Your task to perform on an android device: all mails in gmail Image 0: 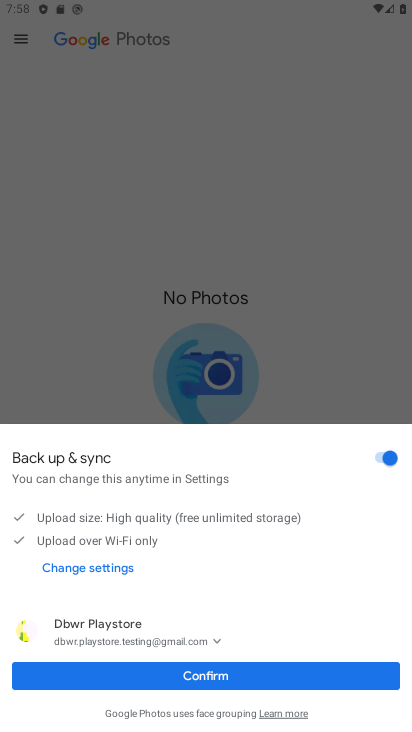
Step 0: press home button
Your task to perform on an android device: all mails in gmail Image 1: 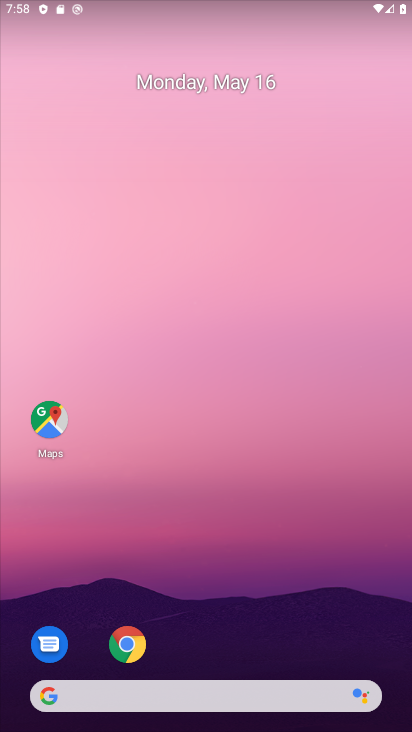
Step 1: drag from (286, 625) to (243, 26)
Your task to perform on an android device: all mails in gmail Image 2: 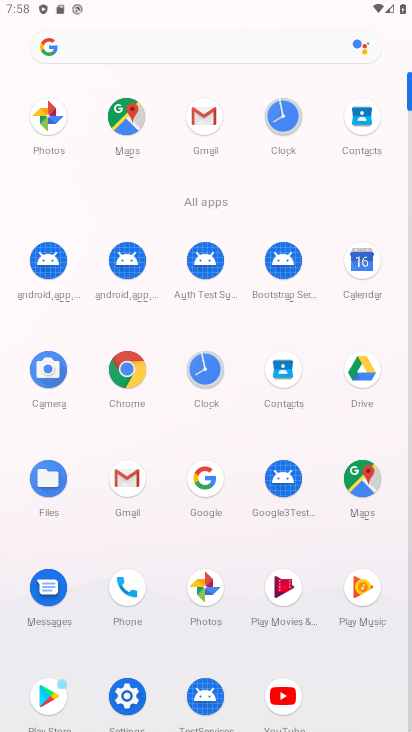
Step 2: click (129, 476)
Your task to perform on an android device: all mails in gmail Image 3: 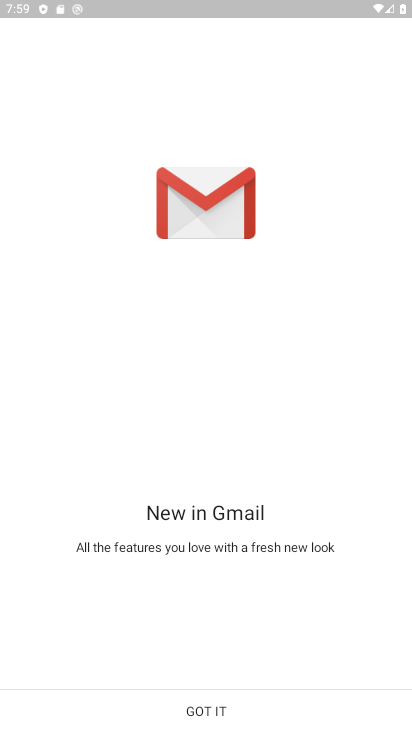
Step 3: click (197, 709)
Your task to perform on an android device: all mails in gmail Image 4: 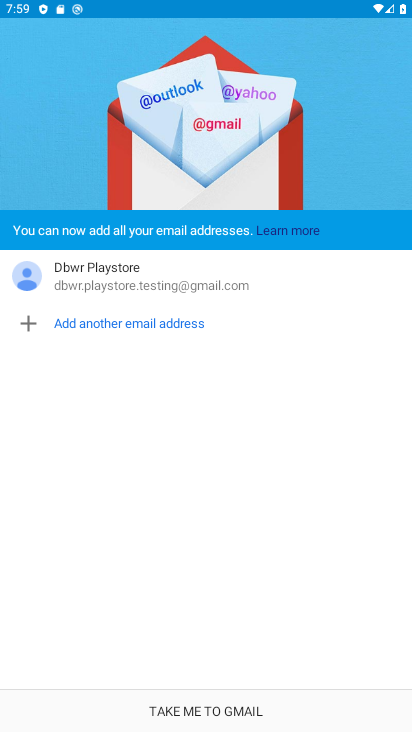
Step 4: click (184, 721)
Your task to perform on an android device: all mails in gmail Image 5: 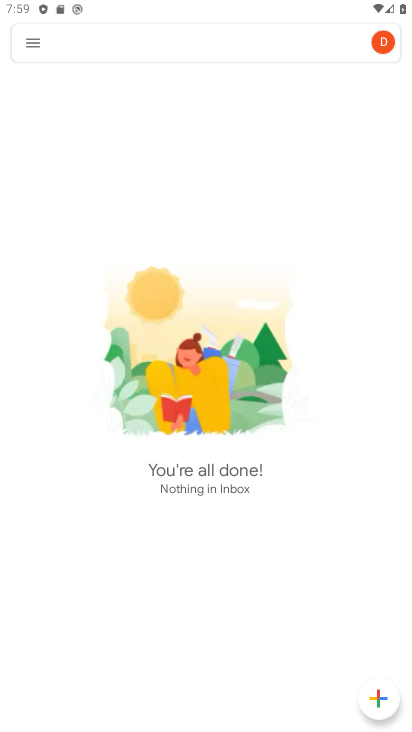
Step 5: click (25, 41)
Your task to perform on an android device: all mails in gmail Image 6: 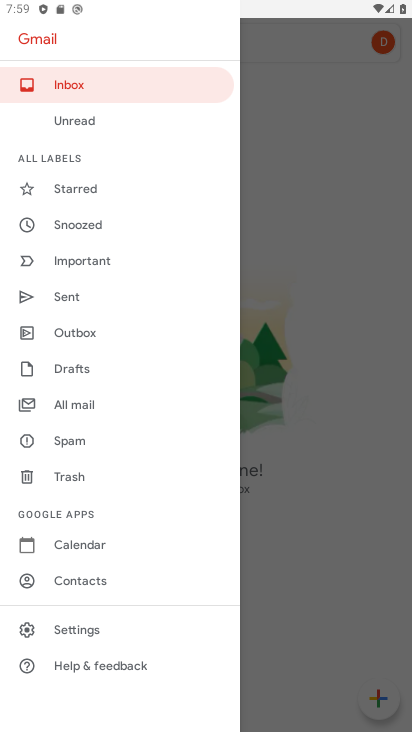
Step 6: click (53, 406)
Your task to perform on an android device: all mails in gmail Image 7: 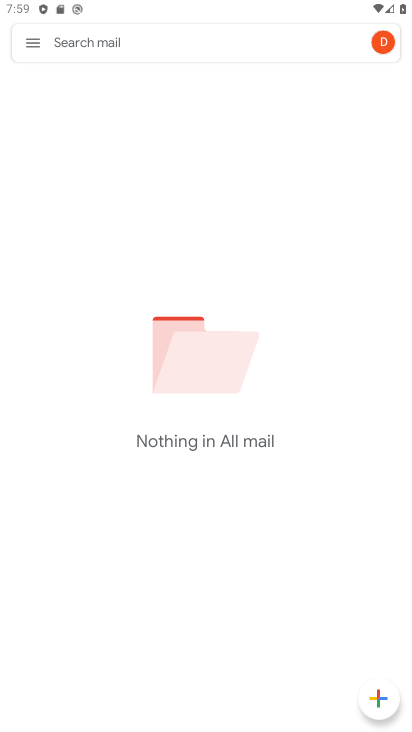
Step 7: task complete